Your task to perform on an android device: Open CNN.com Image 0: 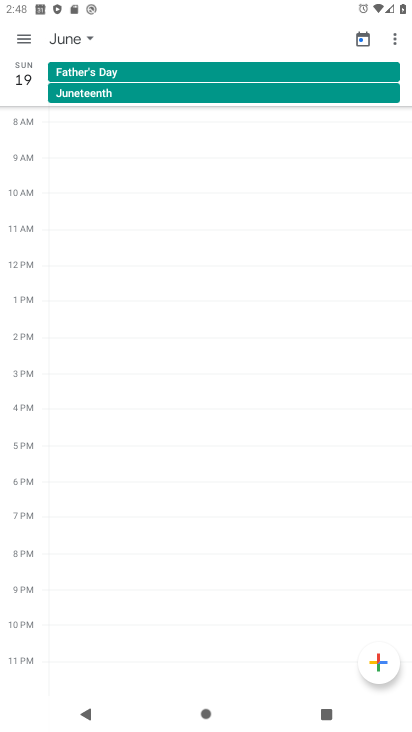
Step 0: press home button
Your task to perform on an android device: Open CNN.com Image 1: 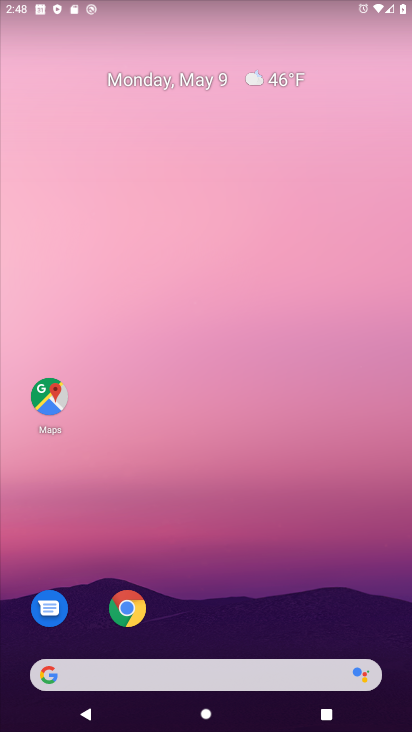
Step 1: click (131, 605)
Your task to perform on an android device: Open CNN.com Image 2: 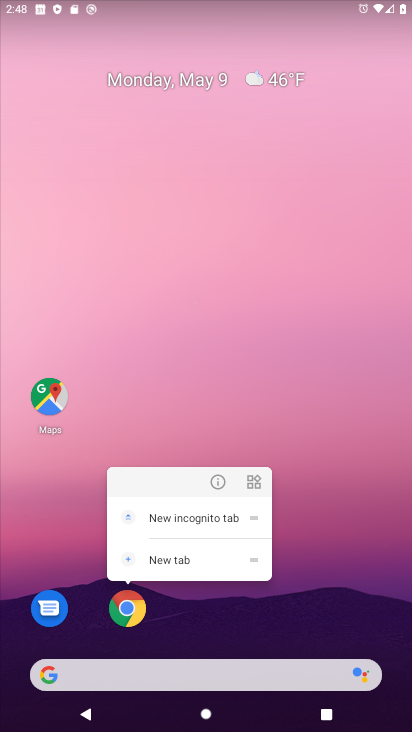
Step 2: click (222, 476)
Your task to perform on an android device: Open CNN.com Image 3: 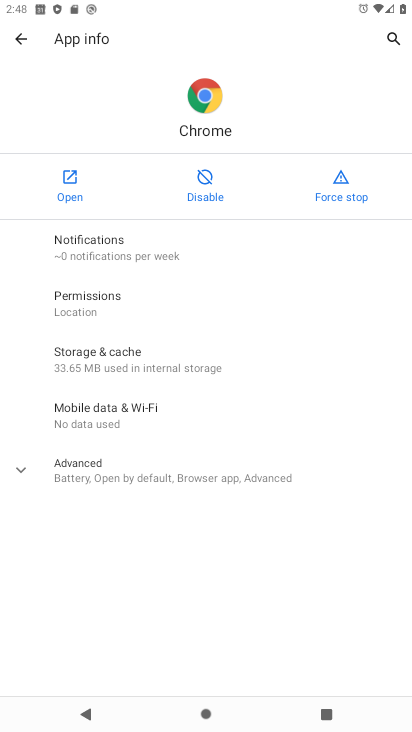
Step 3: click (76, 187)
Your task to perform on an android device: Open CNN.com Image 4: 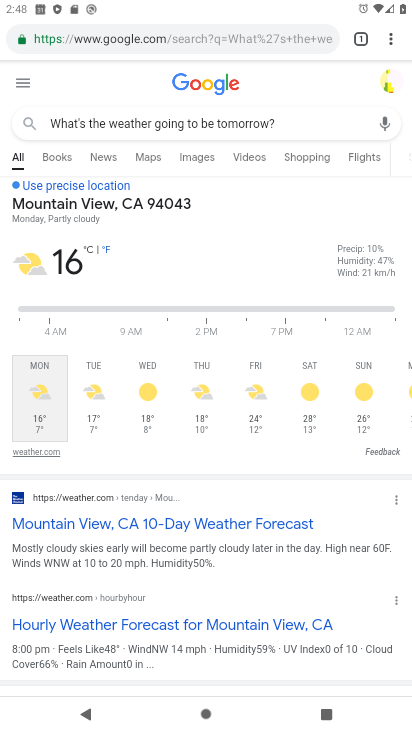
Step 4: click (187, 41)
Your task to perform on an android device: Open CNN.com Image 5: 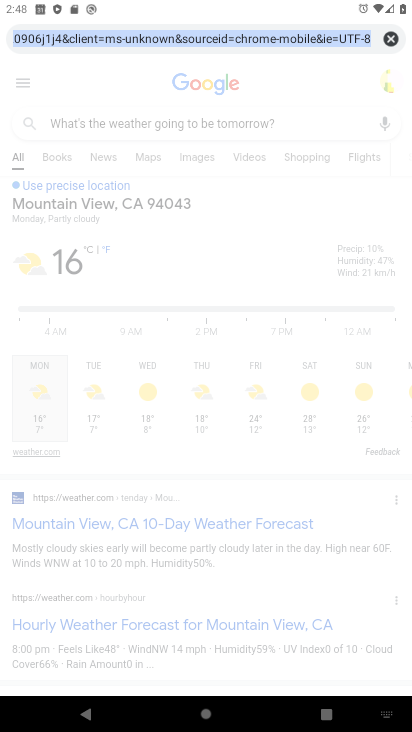
Step 5: press home button
Your task to perform on an android device: Open CNN.com Image 6: 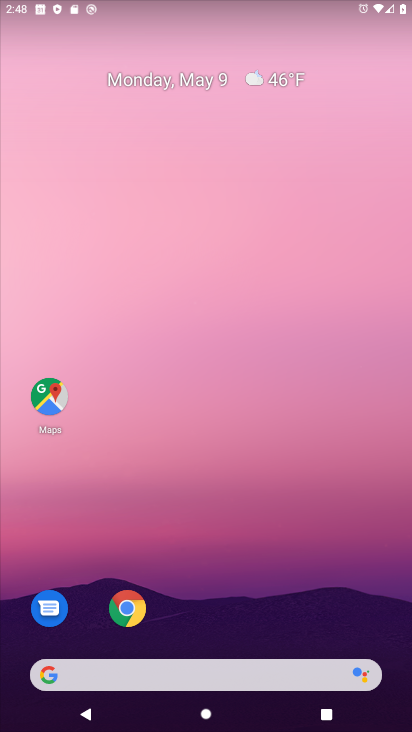
Step 6: click (121, 606)
Your task to perform on an android device: Open CNN.com Image 7: 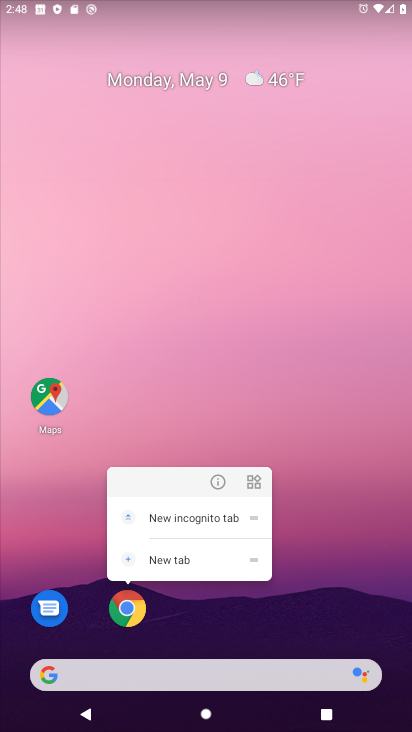
Step 7: click (214, 483)
Your task to perform on an android device: Open CNN.com Image 8: 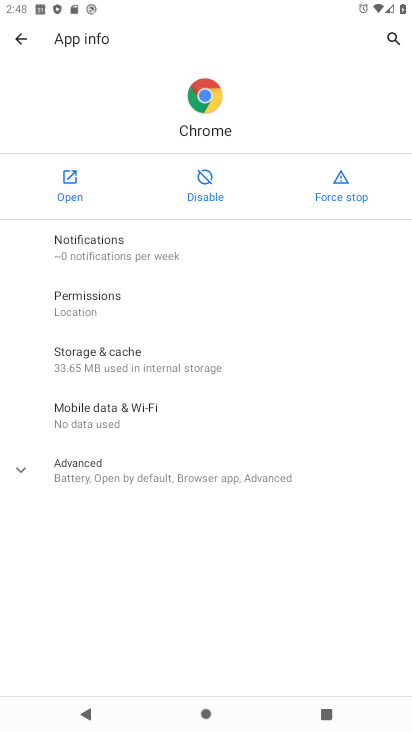
Step 8: click (72, 187)
Your task to perform on an android device: Open CNN.com Image 9: 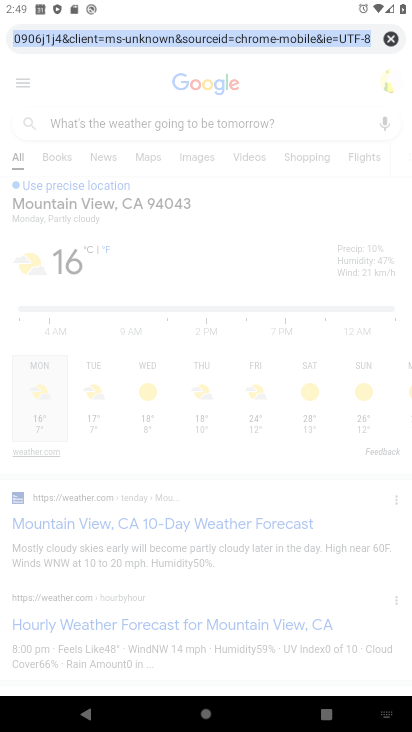
Step 9: type "CNN.com"
Your task to perform on an android device: Open CNN.com Image 10: 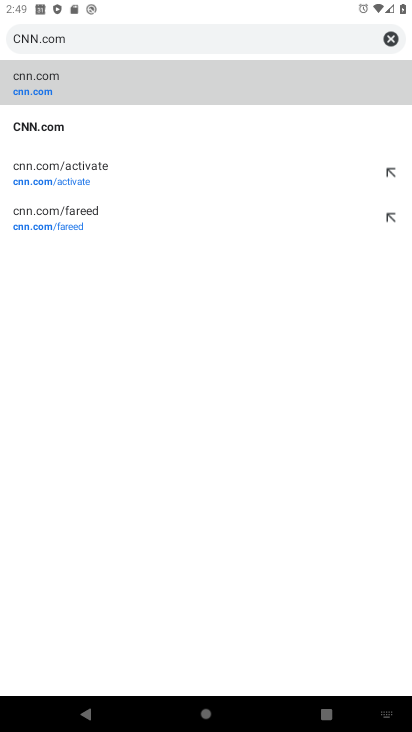
Step 10: click (76, 95)
Your task to perform on an android device: Open CNN.com Image 11: 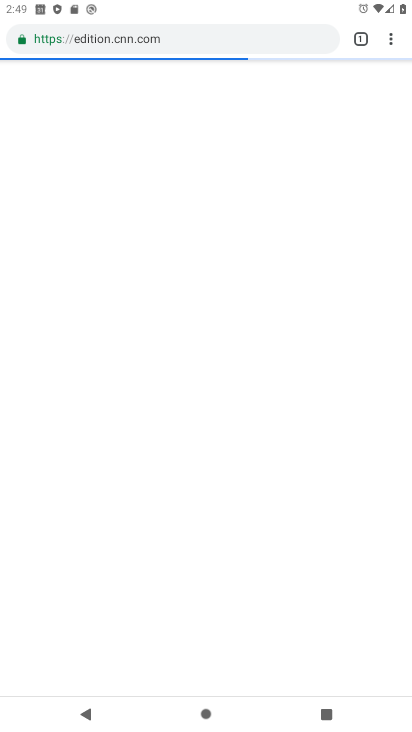
Step 11: task complete